Your task to perform on an android device: Open settings Image 0: 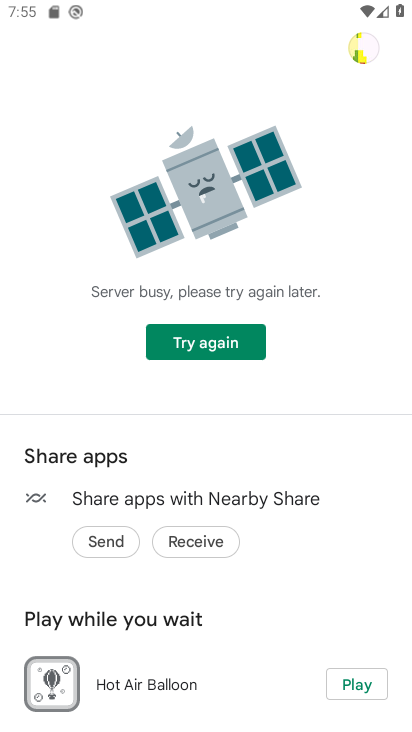
Step 0: press home button
Your task to perform on an android device: Open settings Image 1: 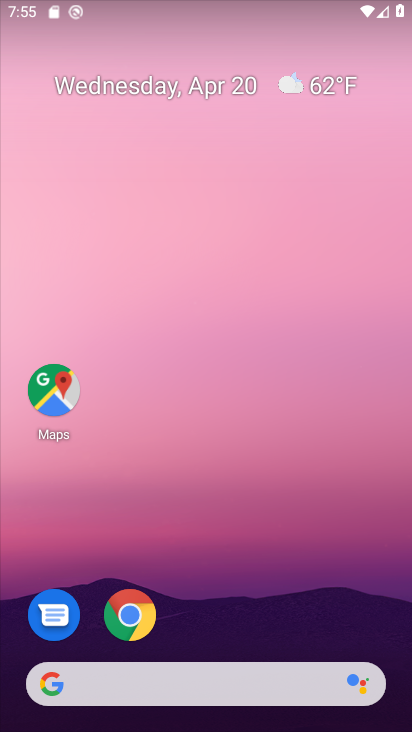
Step 1: drag from (201, 563) to (246, 5)
Your task to perform on an android device: Open settings Image 2: 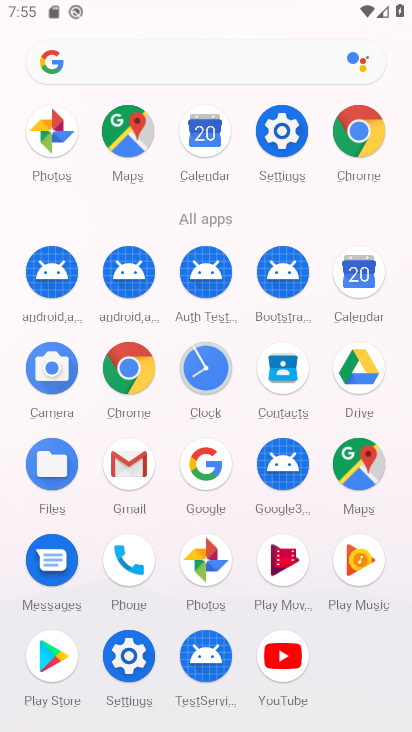
Step 2: click (283, 130)
Your task to perform on an android device: Open settings Image 3: 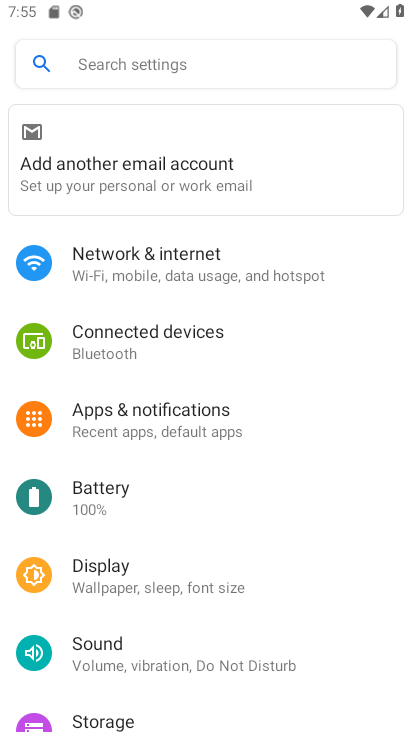
Step 3: task complete